Your task to perform on an android device: turn off sleep mode Image 0: 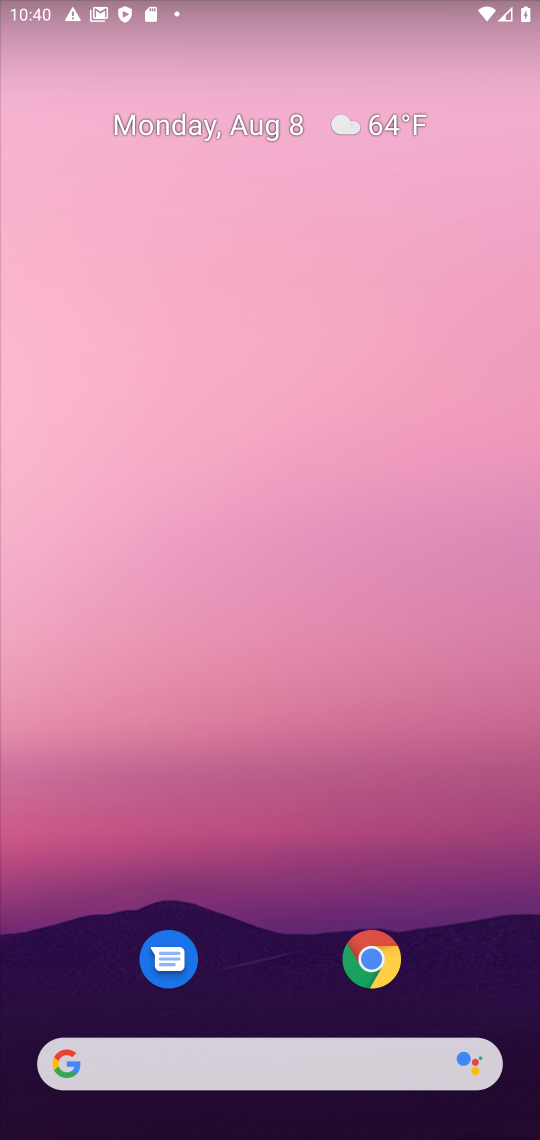
Step 0: drag from (279, 929) to (264, 227)
Your task to perform on an android device: turn off sleep mode Image 1: 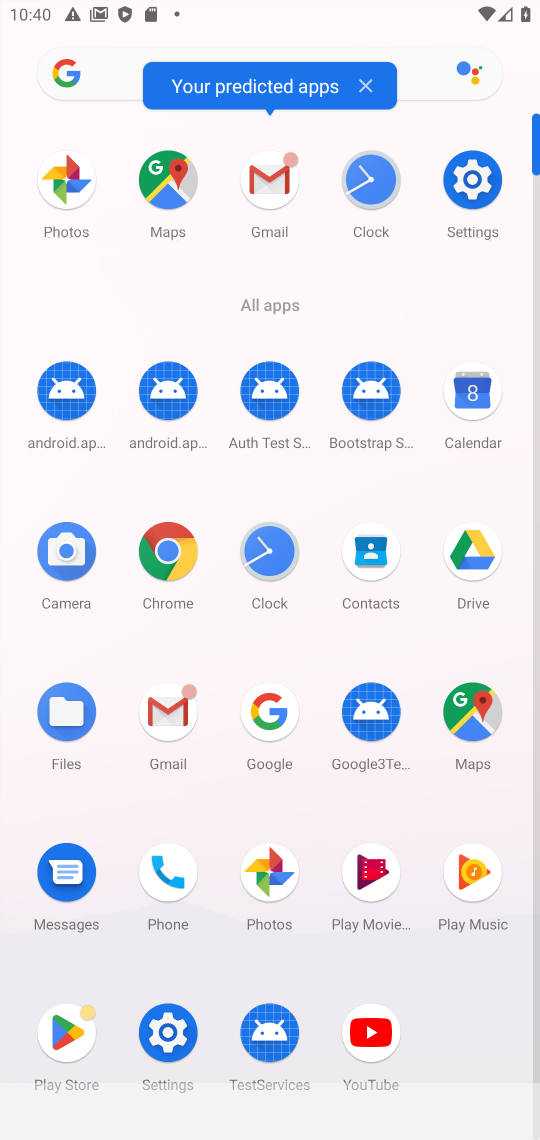
Step 1: click (483, 190)
Your task to perform on an android device: turn off sleep mode Image 2: 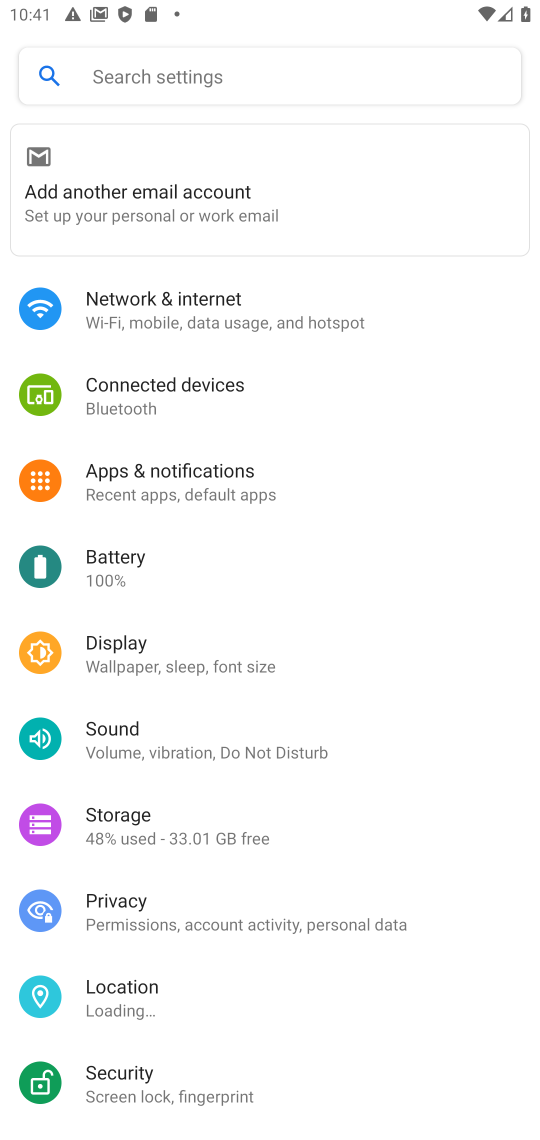
Step 2: click (230, 658)
Your task to perform on an android device: turn off sleep mode Image 3: 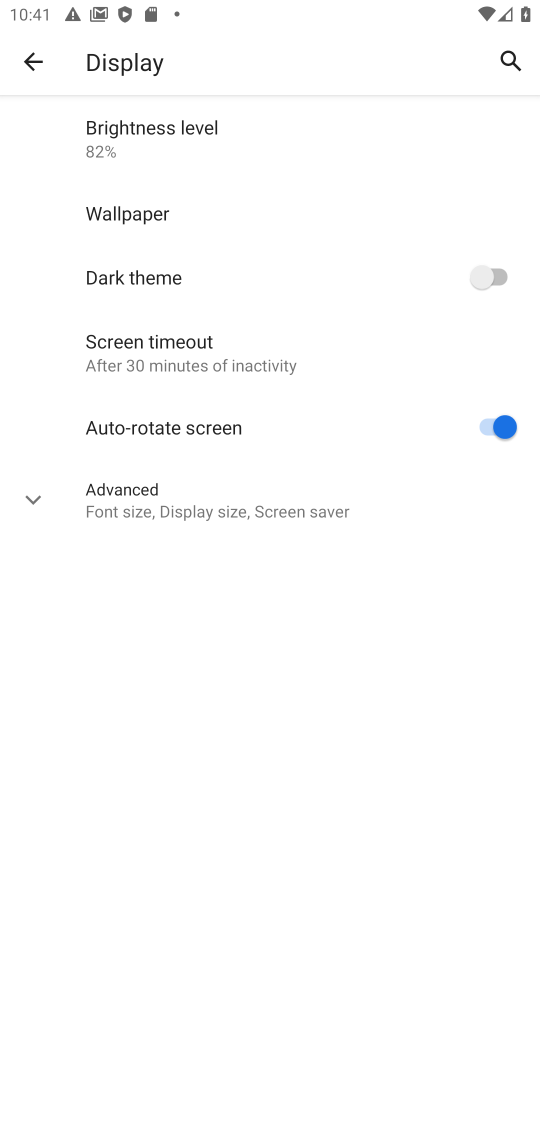
Step 3: click (270, 511)
Your task to perform on an android device: turn off sleep mode Image 4: 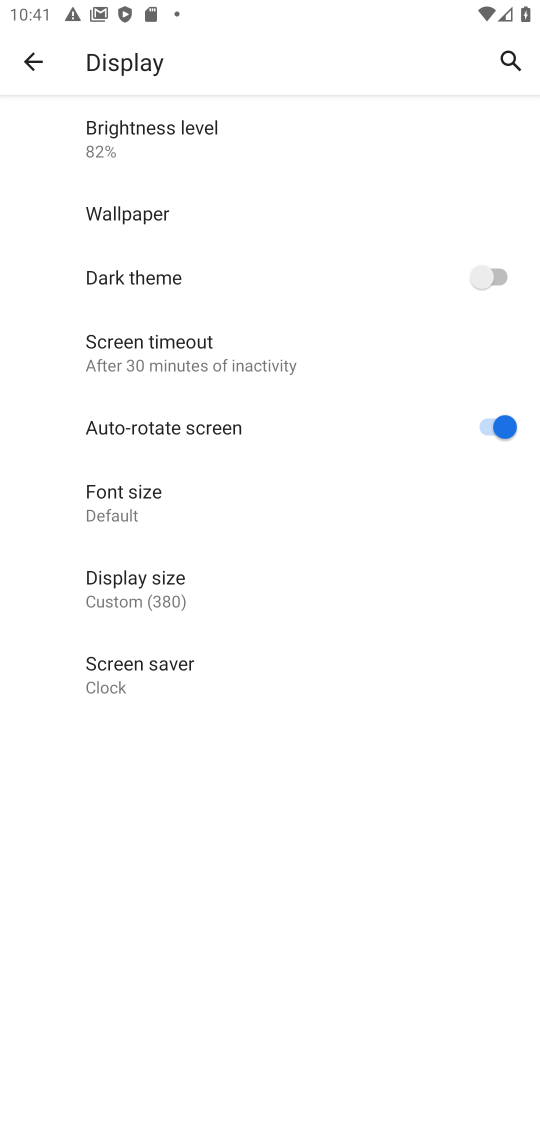
Step 4: task complete